Your task to perform on an android device: Open the phone app and click the voicemail tab. Image 0: 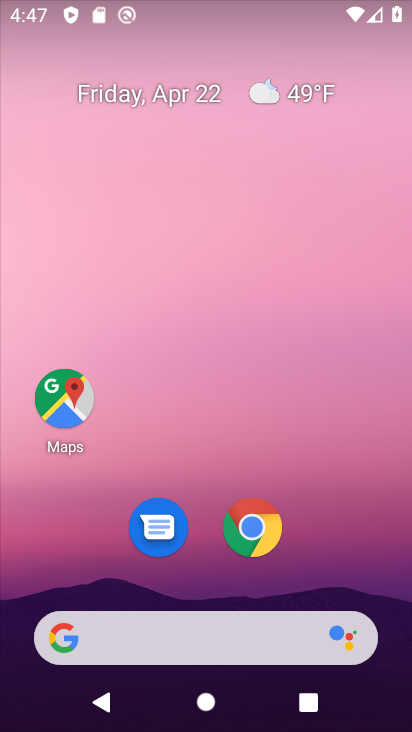
Step 0: drag from (260, 659) to (109, 113)
Your task to perform on an android device: Open the phone app and click the voicemail tab. Image 1: 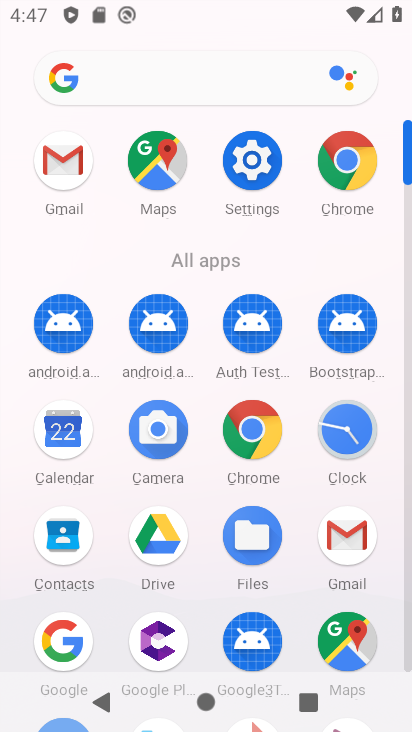
Step 1: drag from (232, 501) to (243, 195)
Your task to perform on an android device: Open the phone app and click the voicemail tab. Image 2: 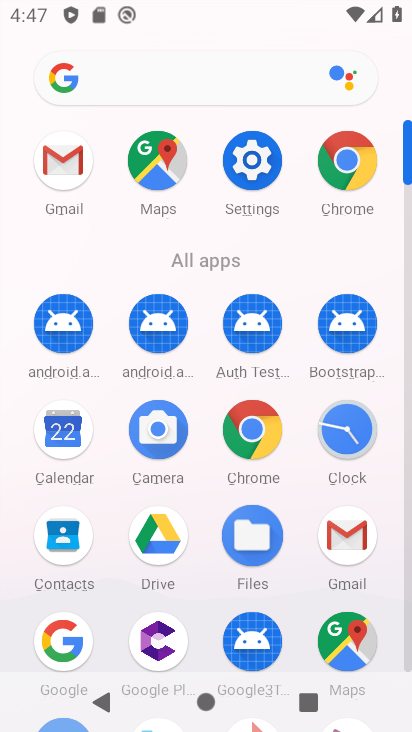
Step 2: drag from (194, 527) to (214, 189)
Your task to perform on an android device: Open the phone app and click the voicemail tab. Image 3: 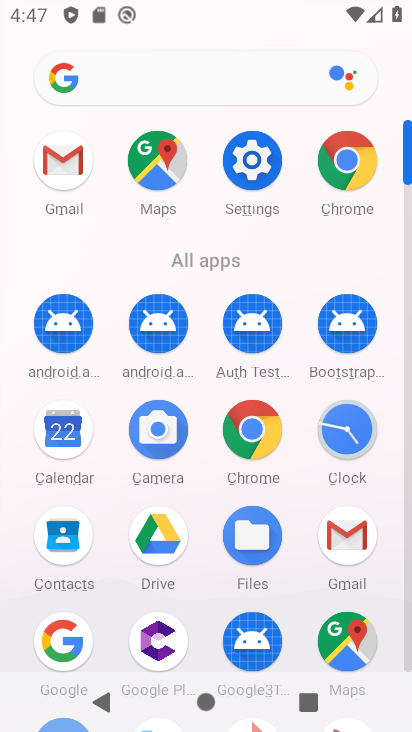
Step 3: drag from (229, 480) to (225, 226)
Your task to perform on an android device: Open the phone app and click the voicemail tab. Image 4: 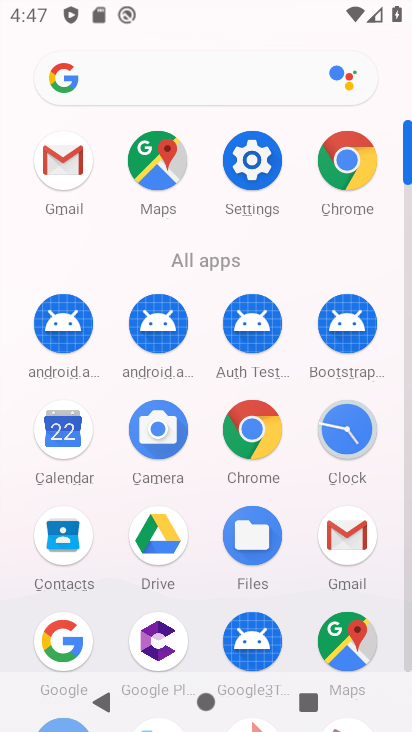
Step 4: drag from (197, 517) to (174, 149)
Your task to perform on an android device: Open the phone app and click the voicemail tab. Image 5: 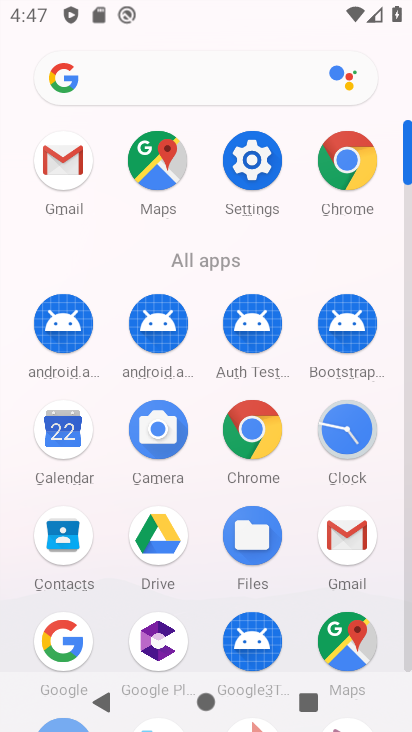
Step 5: drag from (202, 535) to (165, 110)
Your task to perform on an android device: Open the phone app and click the voicemail tab. Image 6: 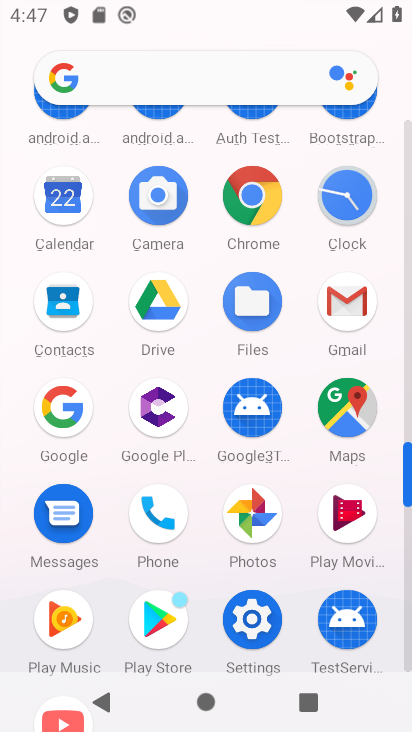
Step 6: drag from (228, 495) to (222, 92)
Your task to perform on an android device: Open the phone app and click the voicemail tab. Image 7: 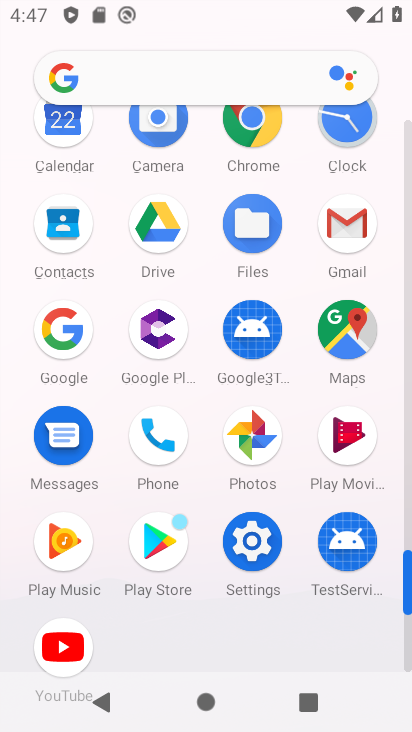
Step 7: click (151, 427)
Your task to perform on an android device: Open the phone app and click the voicemail tab. Image 8: 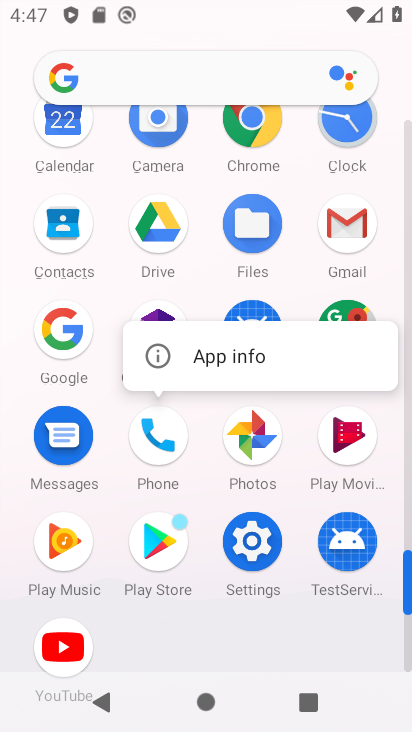
Step 8: click (160, 440)
Your task to perform on an android device: Open the phone app and click the voicemail tab. Image 9: 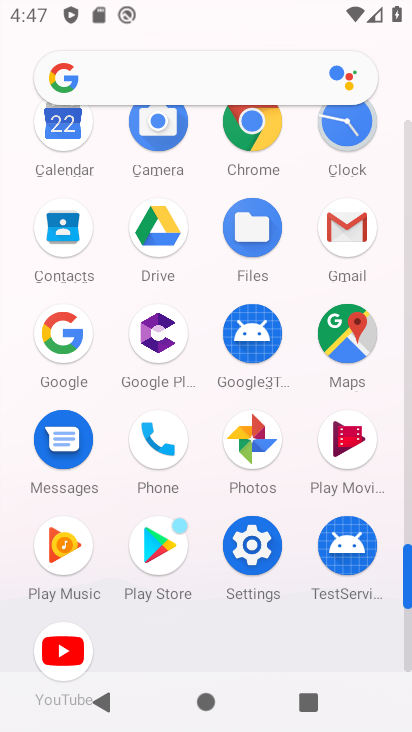
Step 9: click (153, 444)
Your task to perform on an android device: Open the phone app and click the voicemail tab. Image 10: 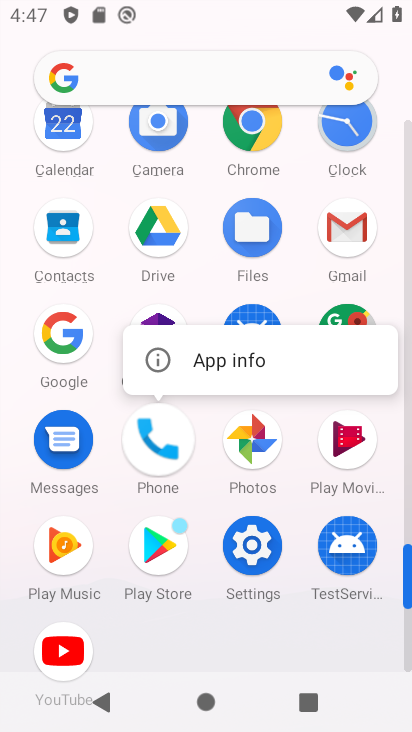
Step 10: click (152, 443)
Your task to perform on an android device: Open the phone app and click the voicemail tab. Image 11: 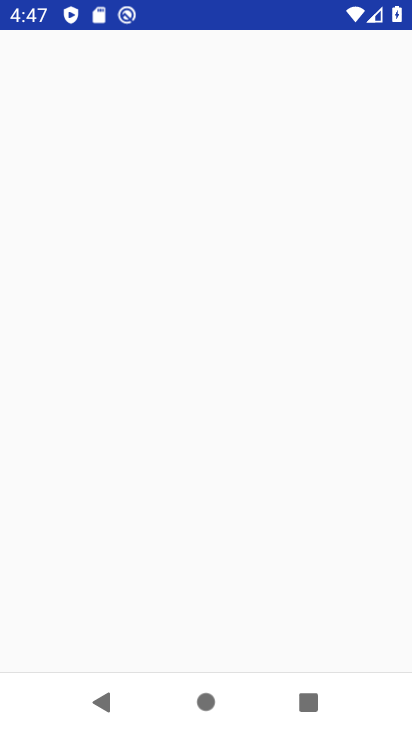
Step 11: click (150, 444)
Your task to perform on an android device: Open the phone app and click the voicemail tab. Image 12: 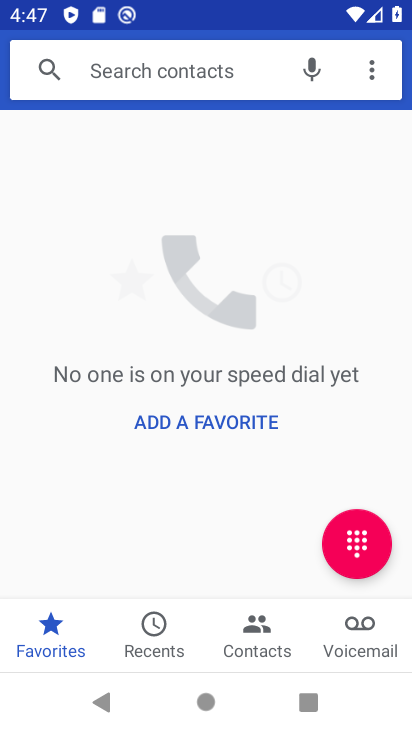
Step 12: click (351, 642)
Your task to perform on an android device: Open the phone app and click the voicemail tab. Image 13: 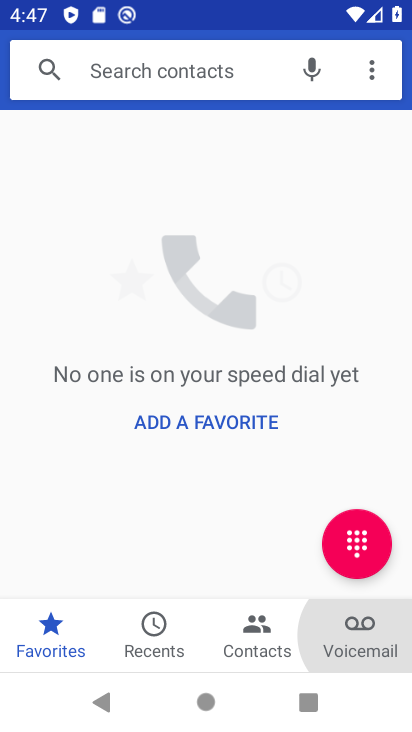
Step 13: click (355, 641)
Your task to perform on an android device: Open the phone app and click the voicemail tab. Image 14: 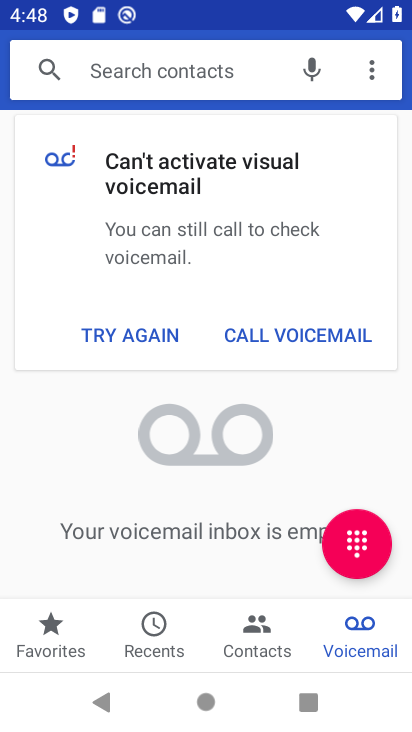
Step 14: task complete